Your task to perform on an android device: Go to Wikipedia Image 0: 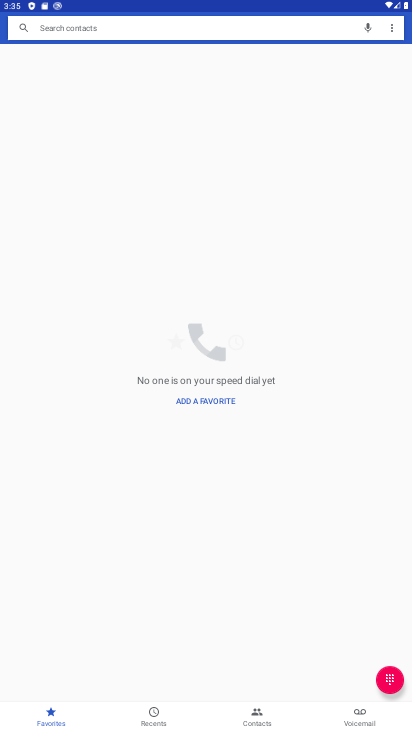
Step 0: press home button
Your task to perform on an android device: Go to Wikipedia Image 1: 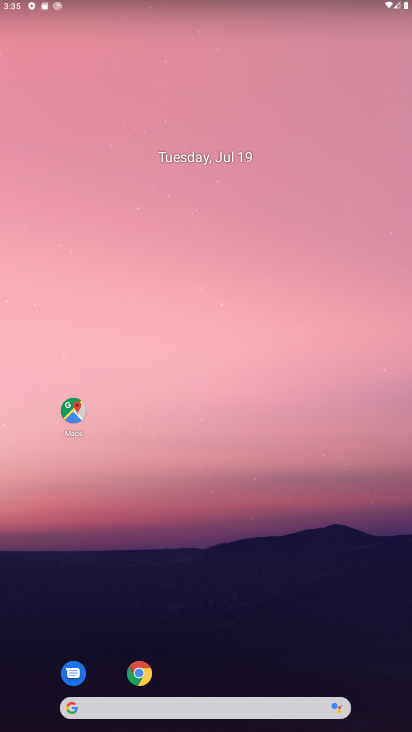
Step 1: click (249, 580)
Your task to perform on an android device: Go to Wikipedia Image 2: 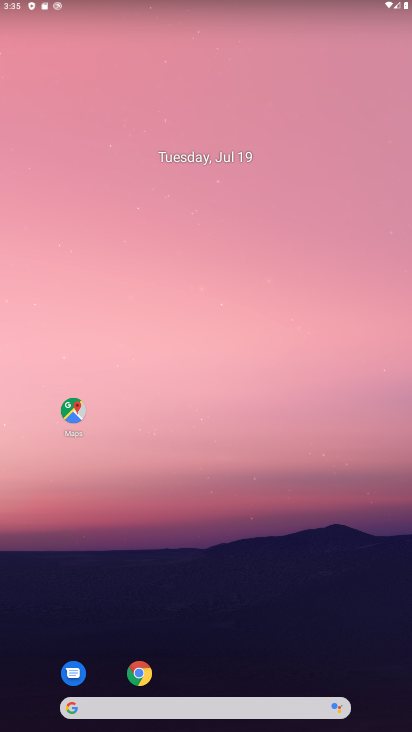
Step 2: click (135, 684)
Your task to perform on an android device: Go to Wikipedia Image 3: 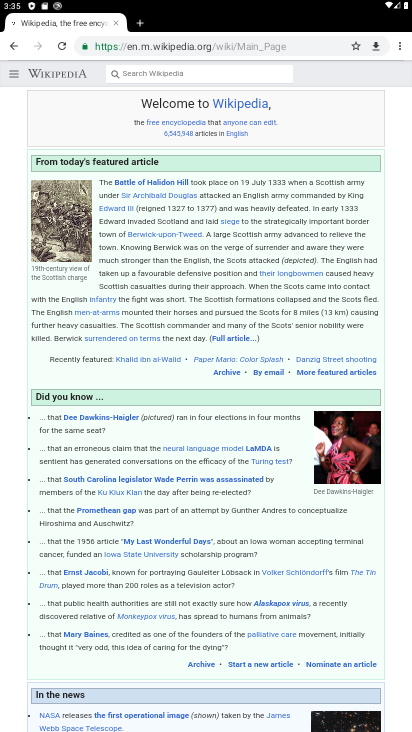
Step 3: task complete